Your task to perform on an android device: delete browsing data in the chrome app Image 0: 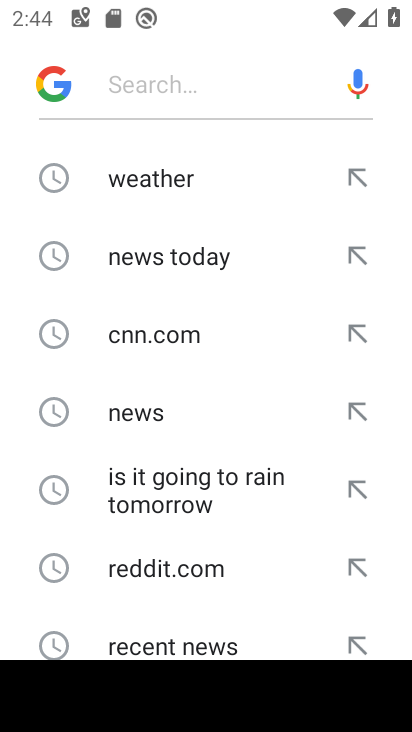
Step 0: press home button
Your task to perform on an android device: delete browsing data in the chrome app Image 1: 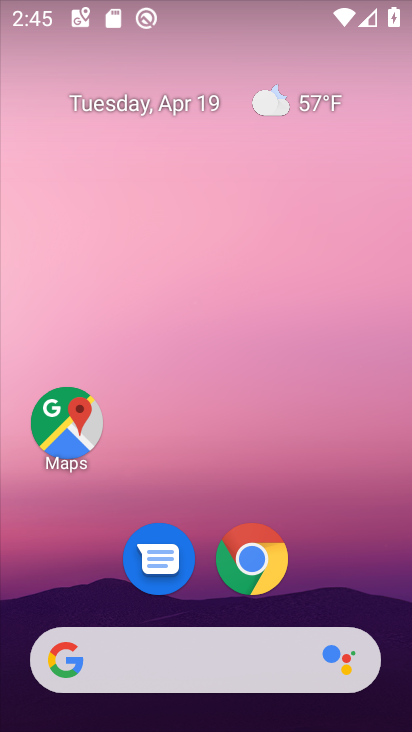
Step 1: click (250, 549)
Your task to perform on an android device: delete browsing data in the chrome app Image 2: 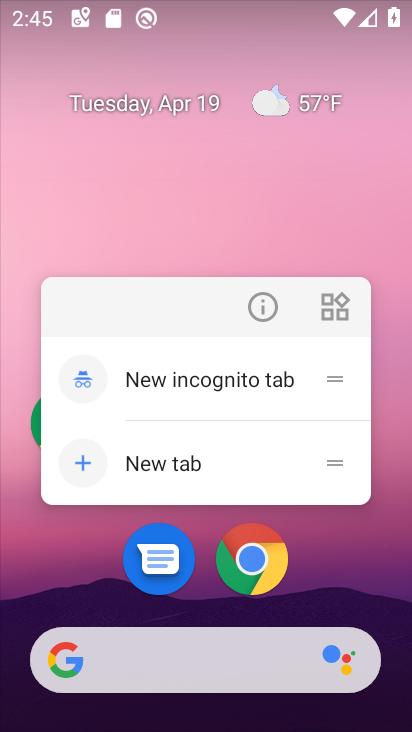
Step 2: drag from (341, 577) to (381, 0)
Your task to perform on an android device: delete browsing data in the chrome app Image 3: 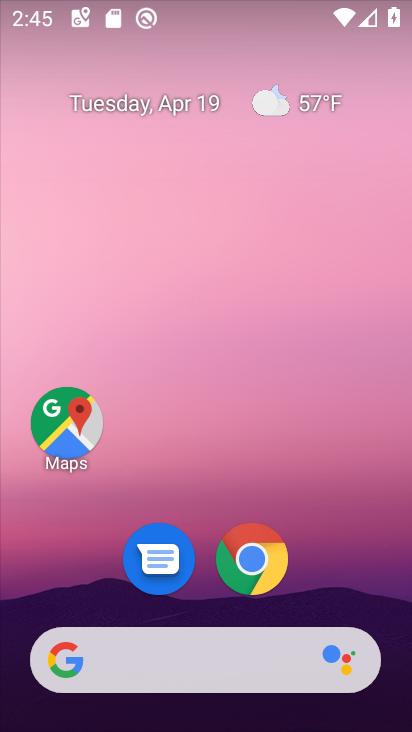
Step 3: drag from (322, 506) to (363, 72)
Your task to perform on an android device: delete browsing data in the chrome app Image 4: 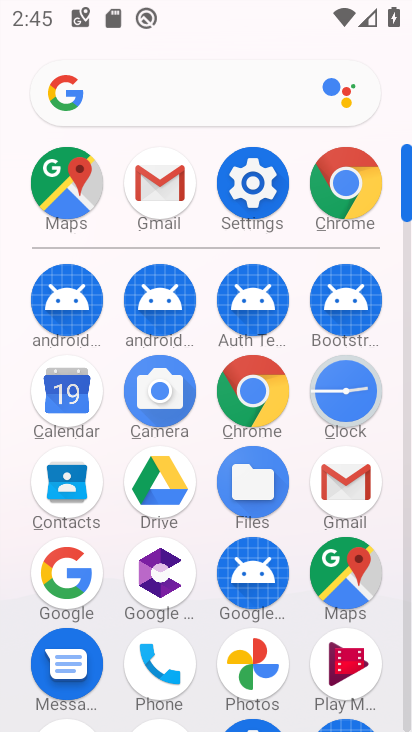
Step 4: click (252, 383)
Your task to perform on an android device: delete browsing data in the chrome app Image 5: 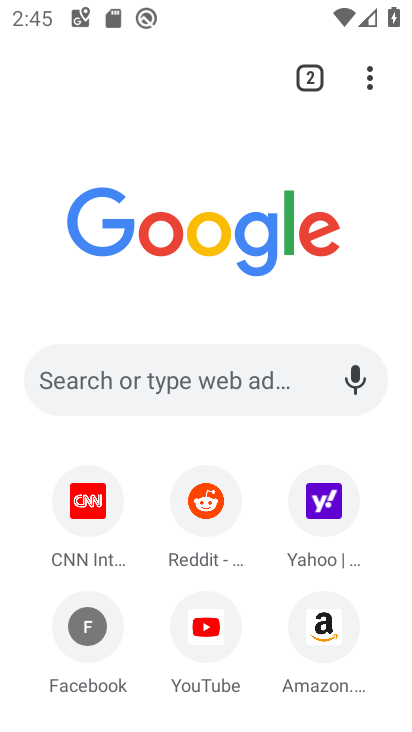
Step 5: click (373, 68)
Your task to perform on an android device: delete browsing data in the chrome app Image 6: 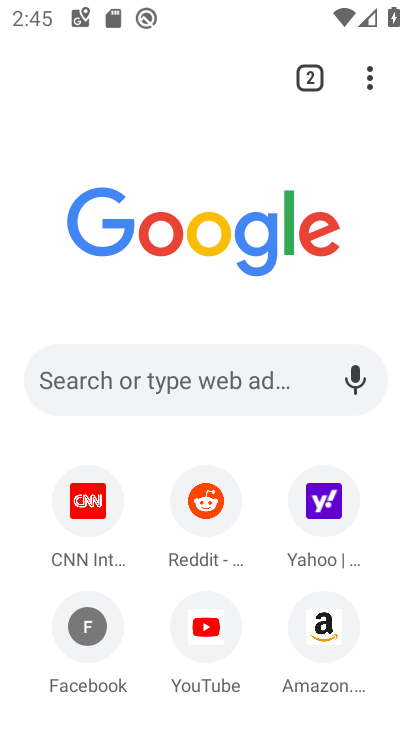
Step 6: click (366, 77)
Your task to perform on an android device: delete browsing data in the chrome app Image 7: 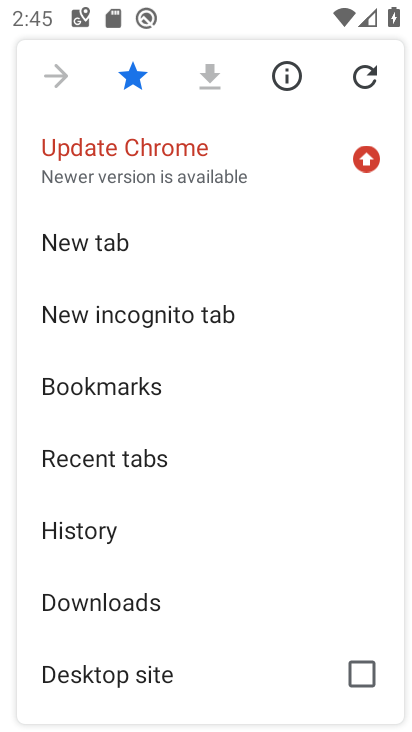
Step 7: click (137, 528)
Your task to perform on an android device: delete browsing data in the chrome app Image 8: 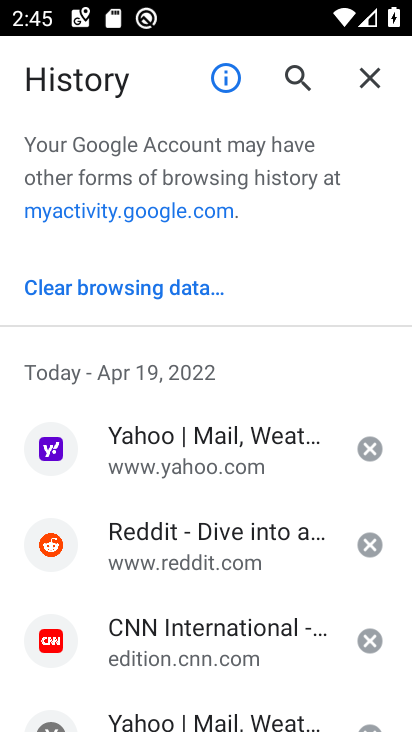
Step 8: click (127, 292)
Your task to perform on an android device: delete browsing data in the chrome app Image 9: 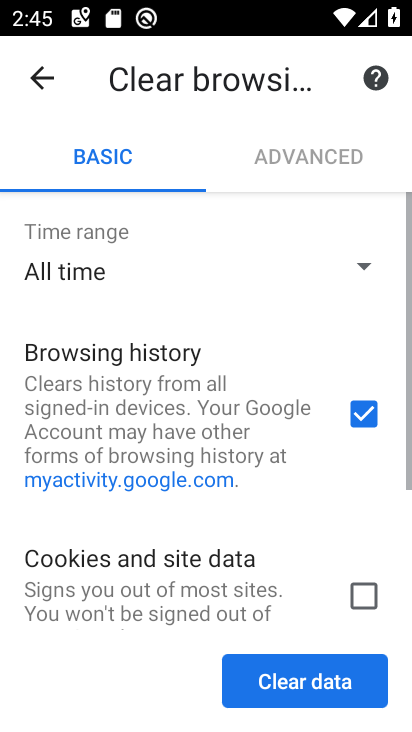
Step 9: click (356, 592)
Your task to perform on an android device: delete browsing data in the chrome app Image 10: 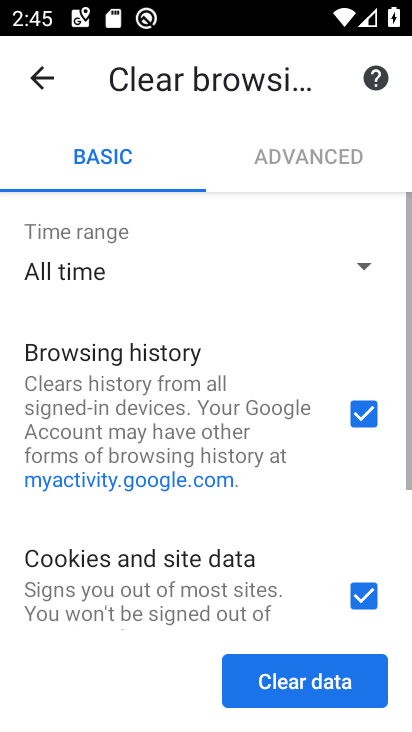
Step 10: drag from (266, 600) to (285, 196)
Your task to perform on an android device: delete browsing data in the chrome app Image 11: 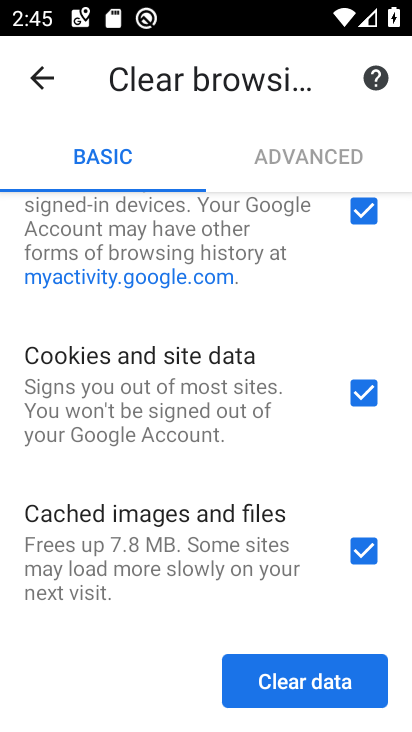
Step 11: click (290, 691)
Your task to perform on an android device: delete browsing data in the chrome app Image 12: 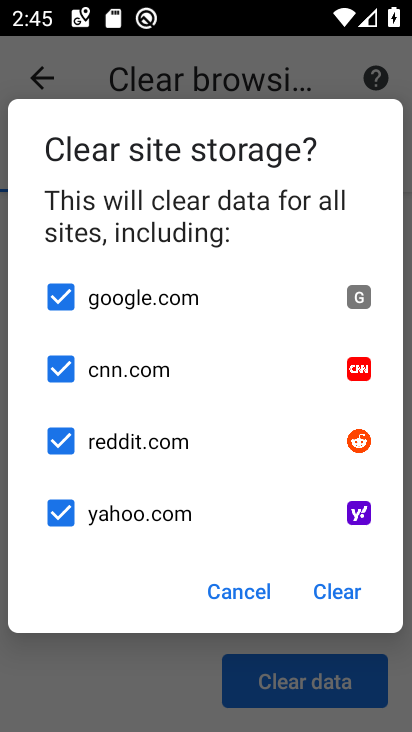
Step 12: click (344, 598)
Your task to perform on an android device: delete browsing data in the chrome app Image 13: 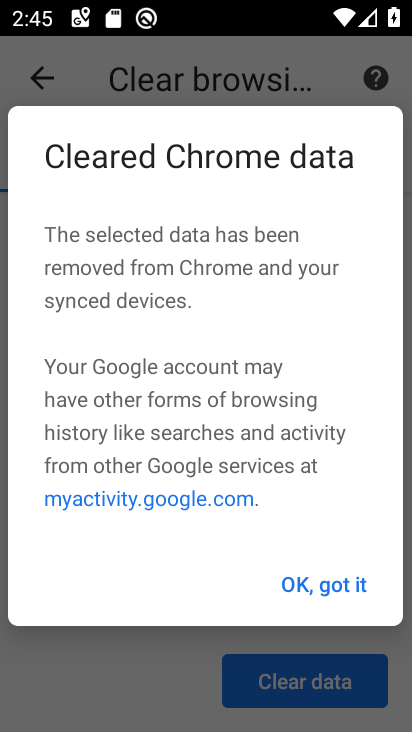
Step 13: click (328, 589)
Your task to perform on an android device: delete browsing data in the chrome app Image 14: 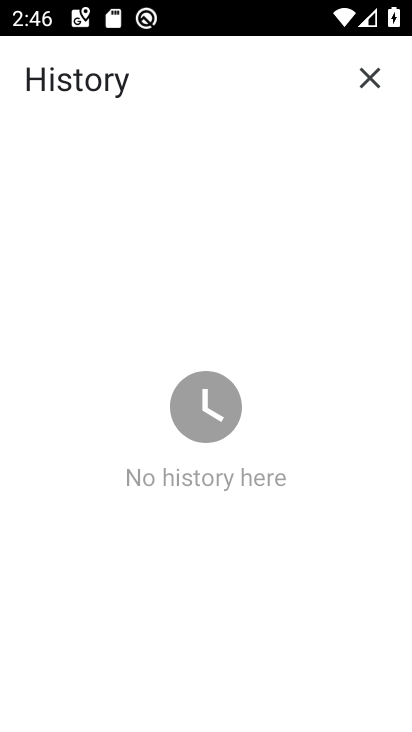
Step 14: task complete